Your task to perform on an android device: Open Chrome and go to settings Image 0: 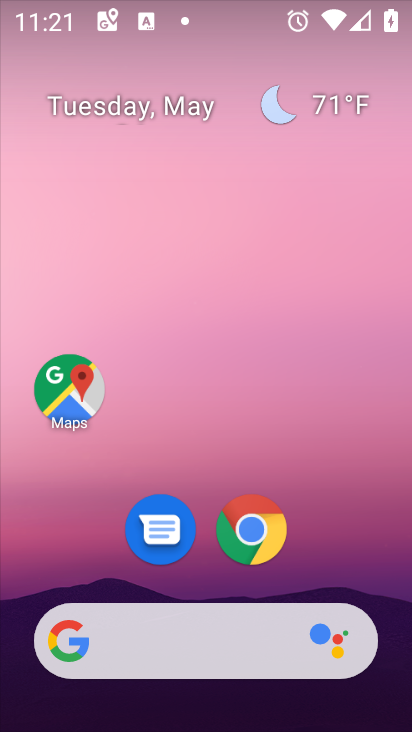
Step 0: drag from (180, 571) to (253, 3)
Your task to perform on an android device: Open Chrome and go to settings Image 1: 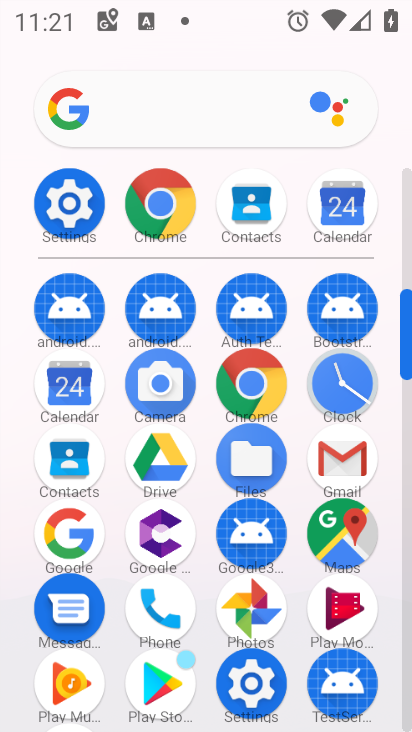
Step 1: click (263, 385)
Your task to perform on an android device: Open Chrome and go to settings Image 2: 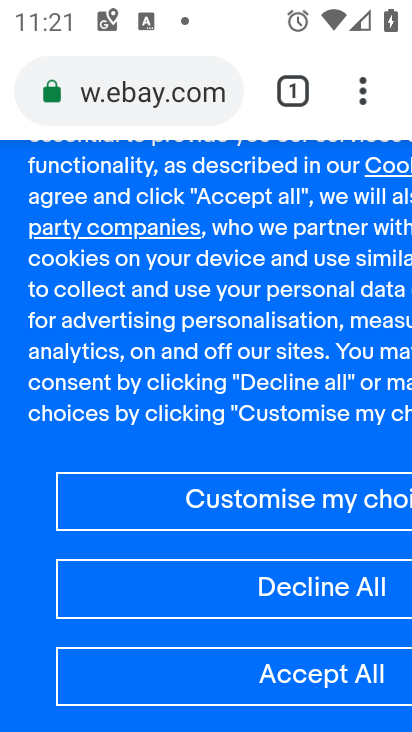
Step 2: press home button
Your task to perform on an android device: Open Chrome and go to settings Image 3: 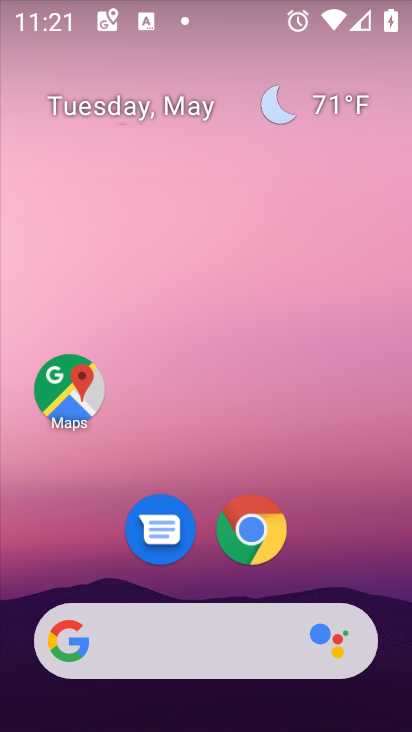
Step 3: click (267, 535)
Your task to perform on an android device: Open Chrome and go to settings Image 4: 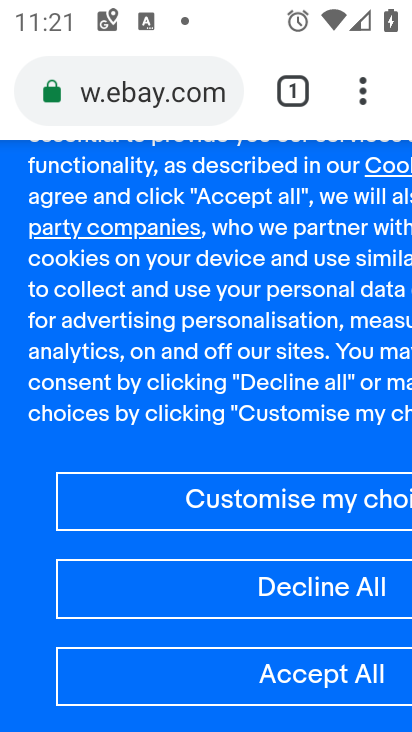
Step 4: click (364, 94)
Your task to perform on an android device: Open Chrome and go to settings Image 5: 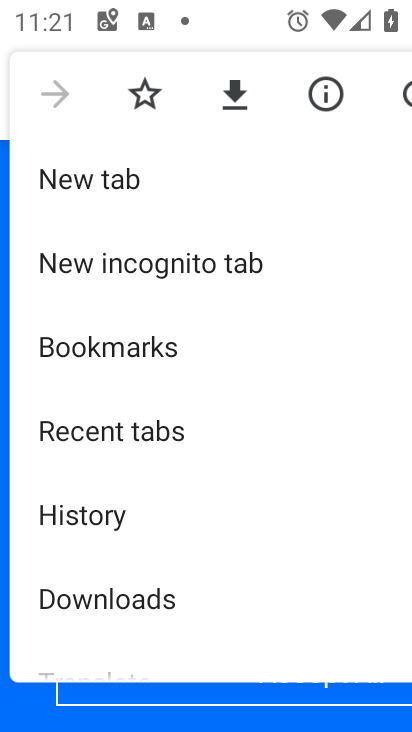
Step 5: drag from (254, 417) to (279, 138)
Your task to perform on an android device: Open Chrome and go to settings Image 6: 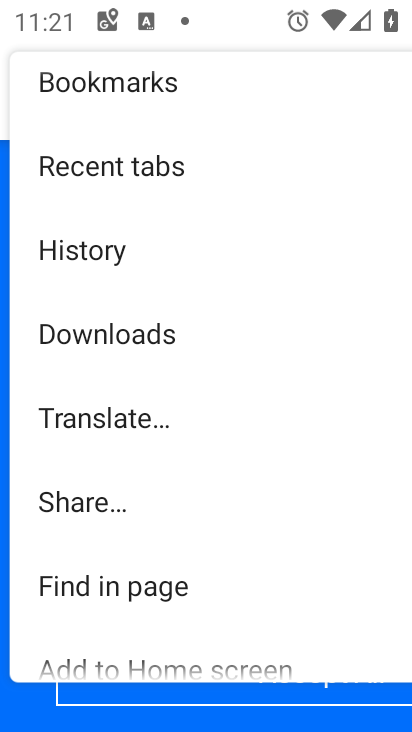
Step 6: drag from (137, 523) to (189, 90)
Your task to perform on an android device: Open Chrome and go to settings Image 7: 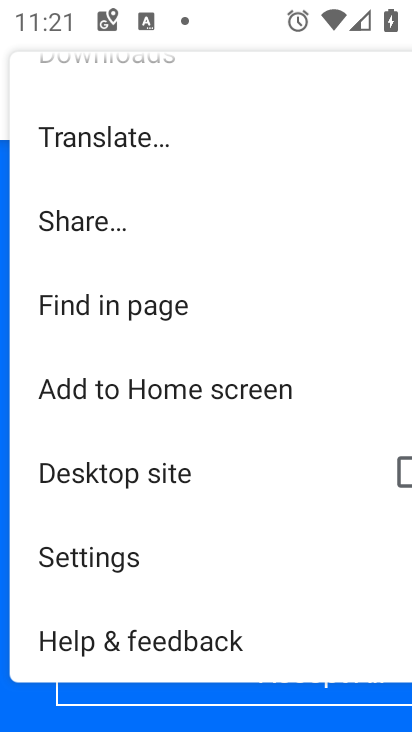
Step 7: click (145, 559)
Your task to perform on an android device: Open Chrome and go to settings Image 8: 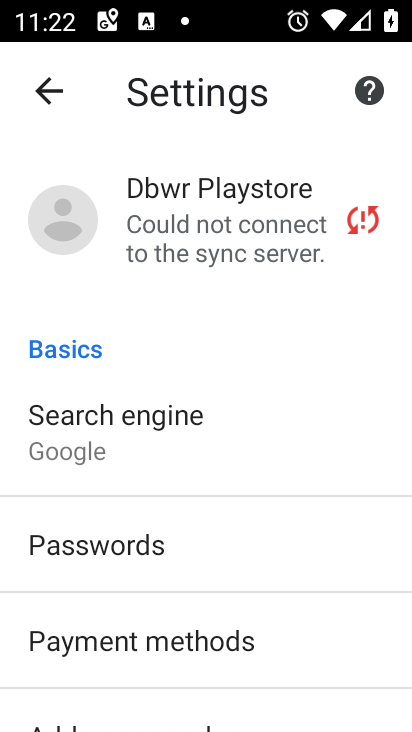
Step 8: task complete